Your task to perform on an android device: Open Chrome and go to the settings page Image 0: 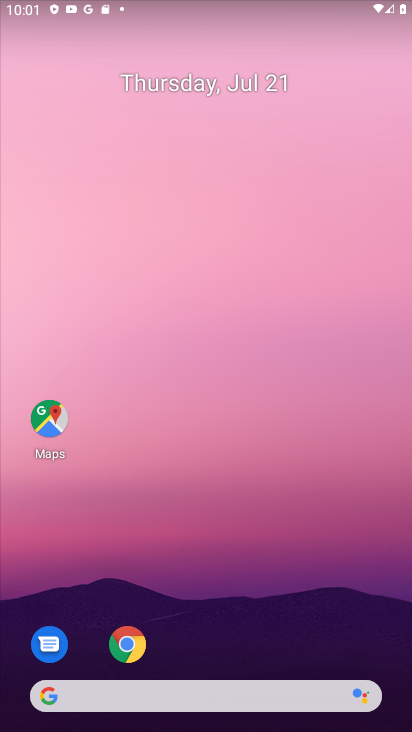
Step 0: press home button
Your task to perform on an android device: Open Chrome and go to the settings page Image 1: 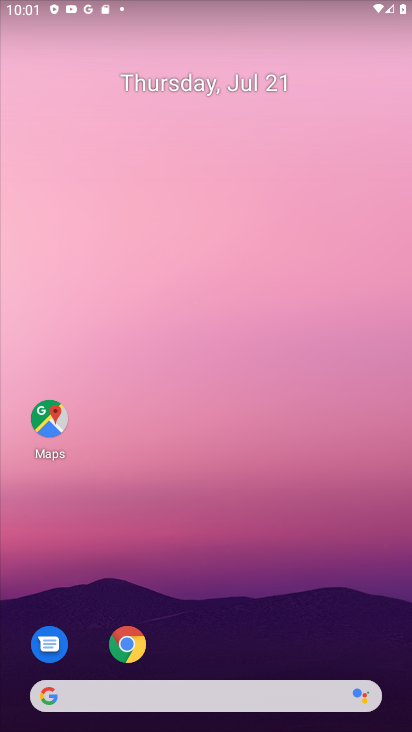
Step 1: click (125, 637)
Your task to perform on an android device: Open Chrome and go to the settings page Image 2: 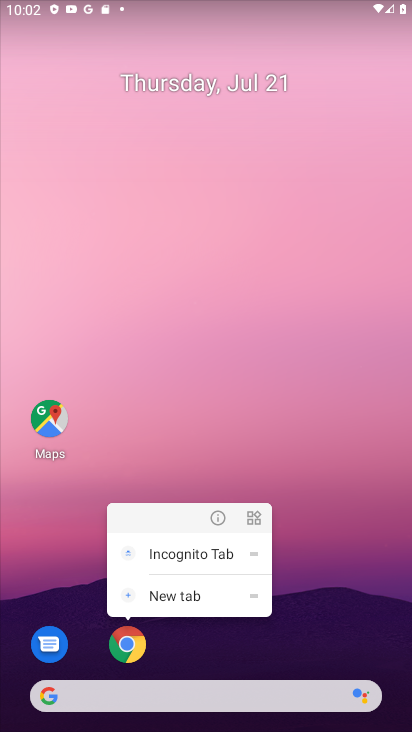
Step 2: click (126, 634)
Your task to perform on an android device: Open Chrome and go to the settings page Image 3: 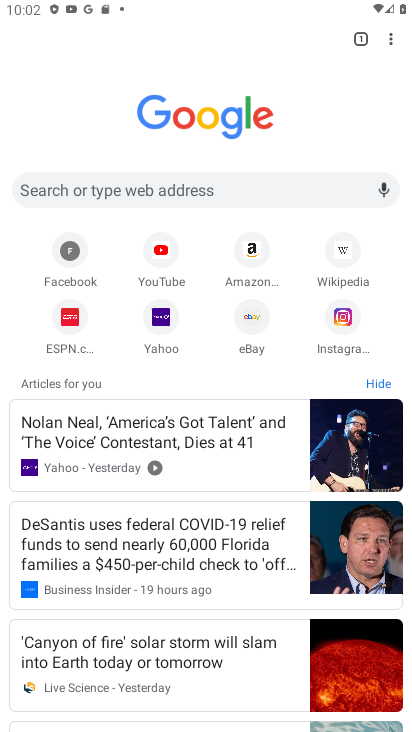
Step 3: click (389, 34)
Your task to perform on an android device: Open Chrome and go to the settings page Image 4: 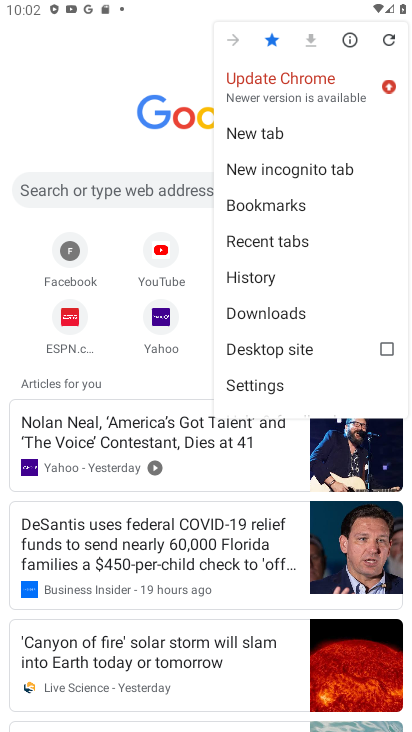
Step 4: click (282, 382)
Your task to perform on an android device: Open Chrome and go to the settings page Image 5: 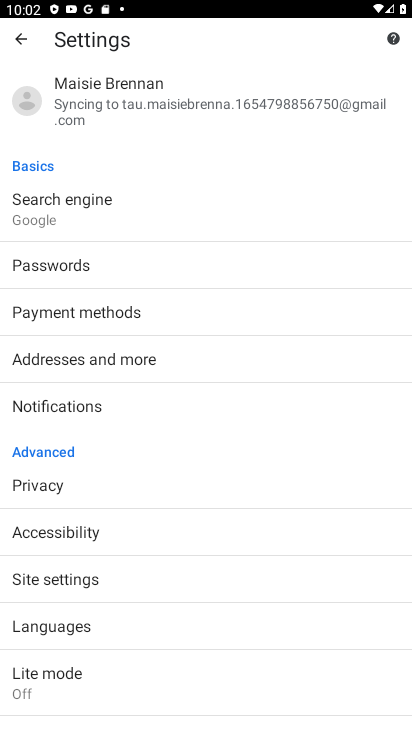
Step 5: task complete